Your task to perform on an android device: Open Chrome and go to settings Image 0: 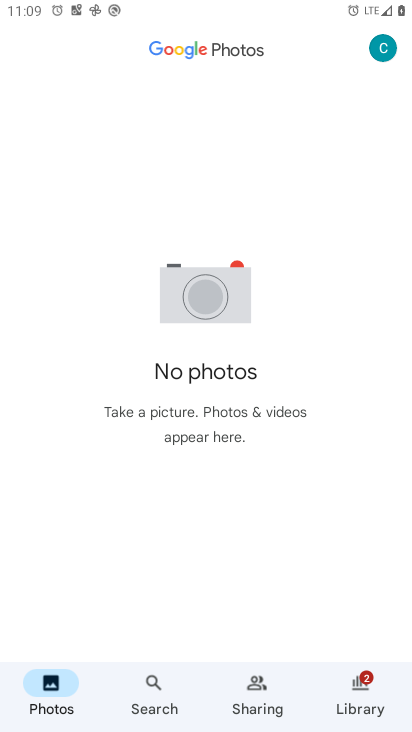
Step 0: press home button
Your task to perform on an android device: Open Chrome and go to settings Image 1: 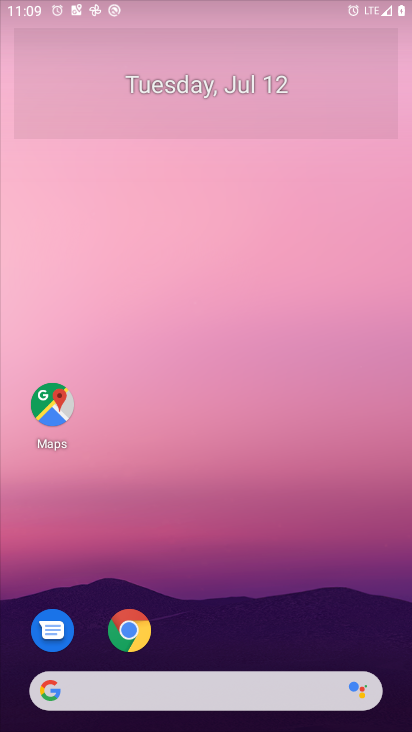
Step 1: drag from (306, 614) to (263, 186)
Your task to perform on an android device: Open Chrome and go to settings Image 2: 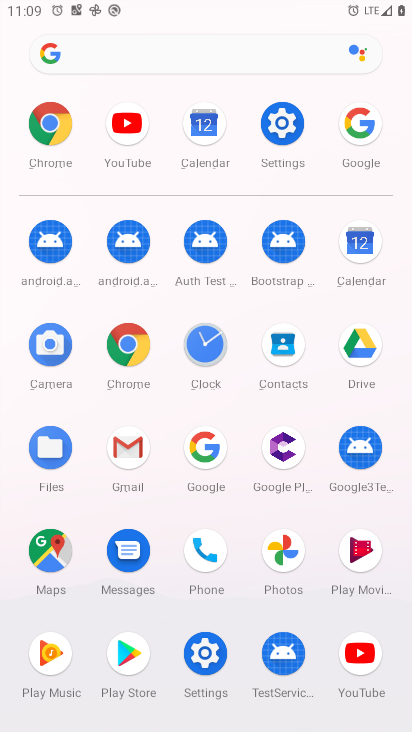
Step 2: click (48, 123)
Your task to perform on an android device: Open Chrome and go to settings Image 3: 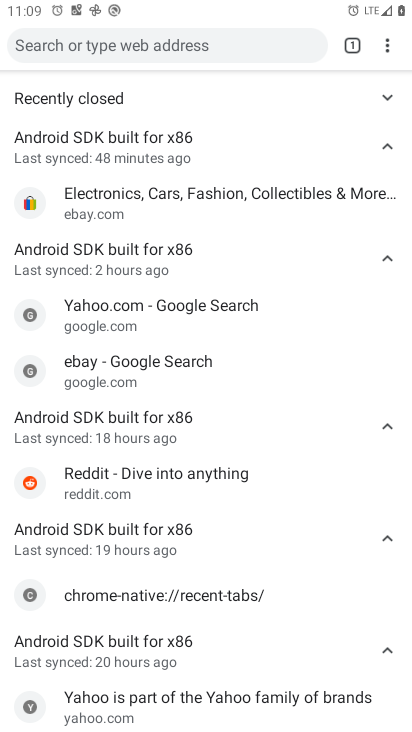
Step 3: click (390, 47)
Your task to perform on an android device: Open Chrome and go to settings Image 4: 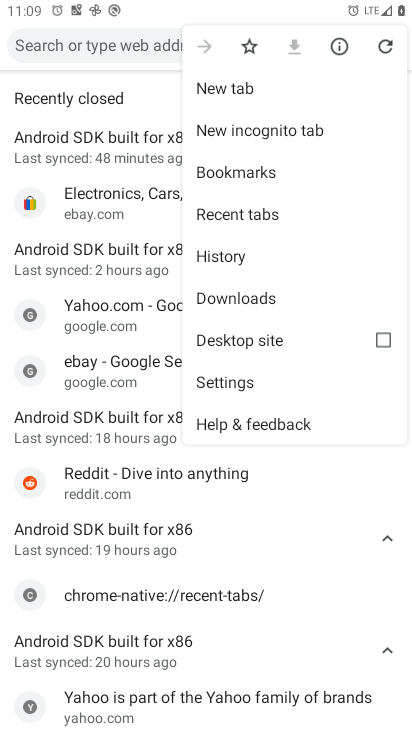
Step 4: click (237, 377)
Your task to perform on an android device: Open Chrome and go to settings Image 5: 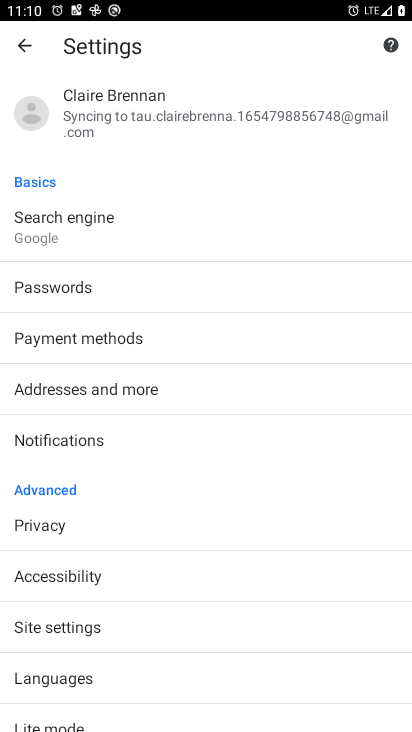
Step 5: task complete